Your task to perform on an android device: see creations saved in the google photos Image 0: 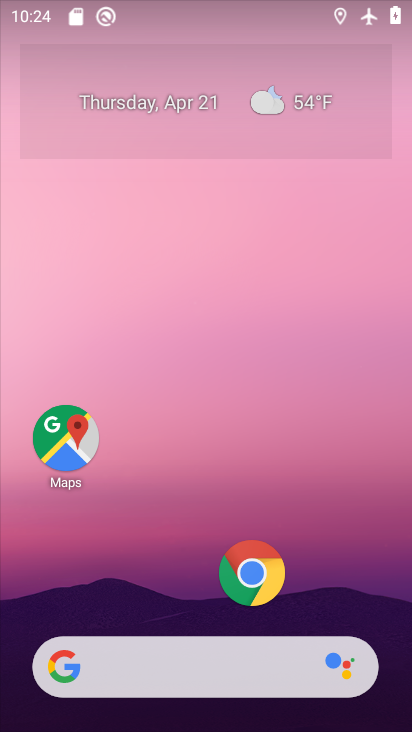
Step 0: drag from (166, 613) to (175, 106)
Your task to perform on an android device: see creations saved in the google photos Image 1: 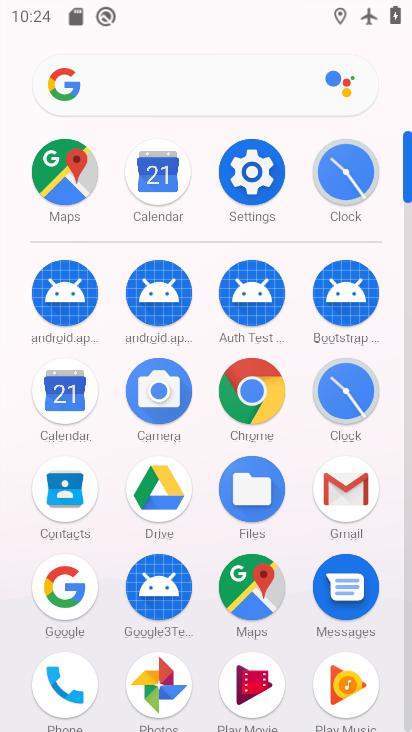
Step 1: click (156, 660)
Your task to perform on an android device: see creations saved in the google photos Image 2: 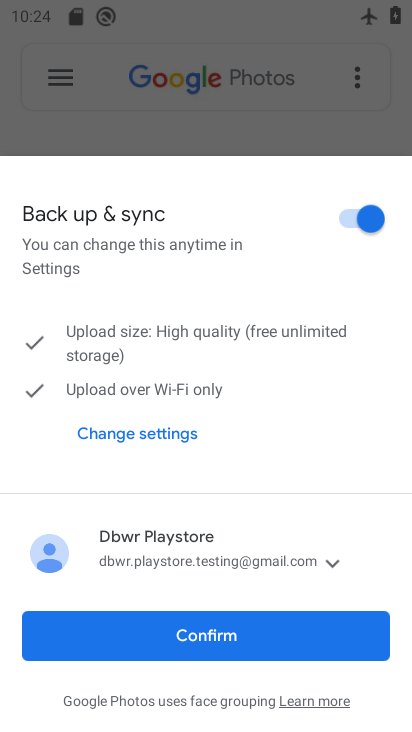
Step 2: click (149, 619)
Your task to perform on an android device: see creations saved in the google photos Image 3: 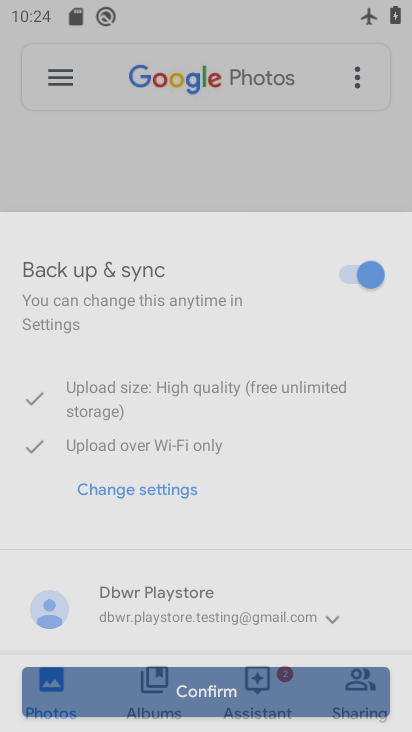
Step 3: click (157, 640)
Your task to perform on an android device: see creations saved in the google photos Image 4: 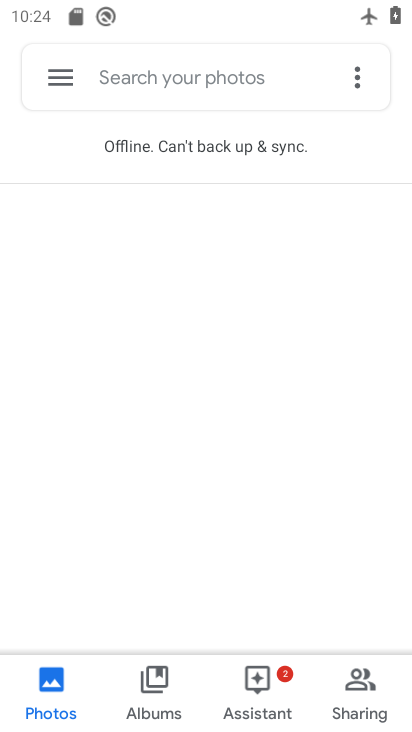
Step 4: click (298, 84)
Your task to perform on an android device: see creations saved in the google photos Image 5: 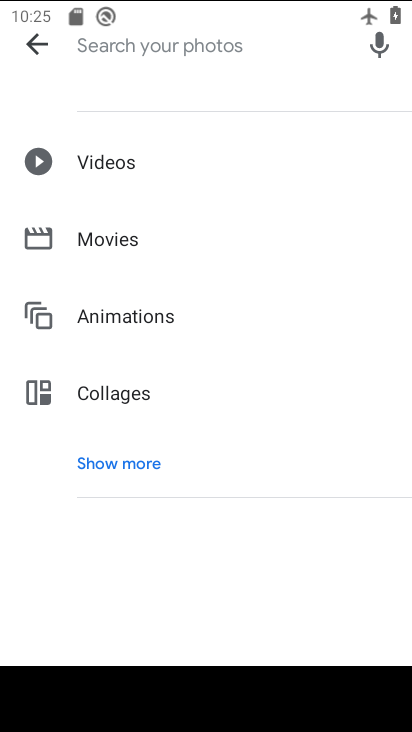
Step 5: click (143, 456)
Your task to perform on an android device: see creations saved in the google photos Image 6: 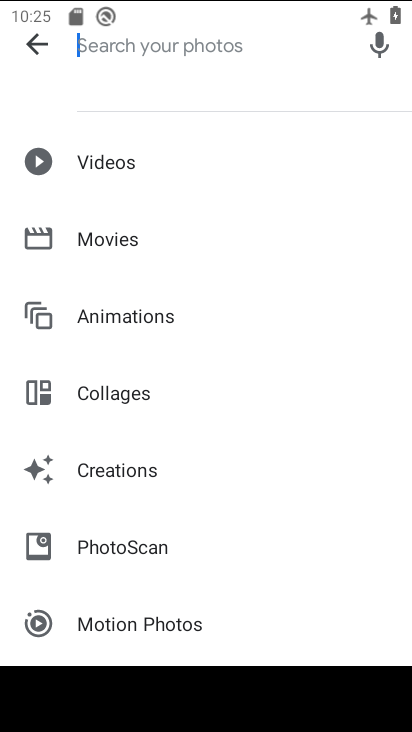
Step 6: click (140, 461)
Your task to perform on an android device: see creations saved in the google photos Image 7: 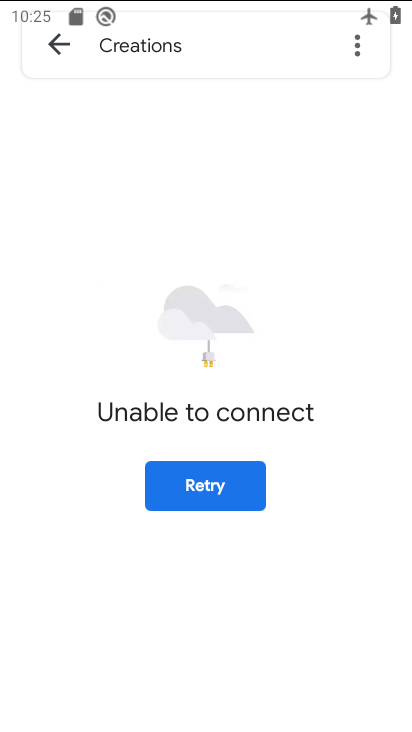
Step 7: task complete